Your task to perform on an android device: open app "Microsoft Authenticator" (install if not already installed) and enter user name: "Cornell@yahoo.com" and password: "bothersome" Image 0: 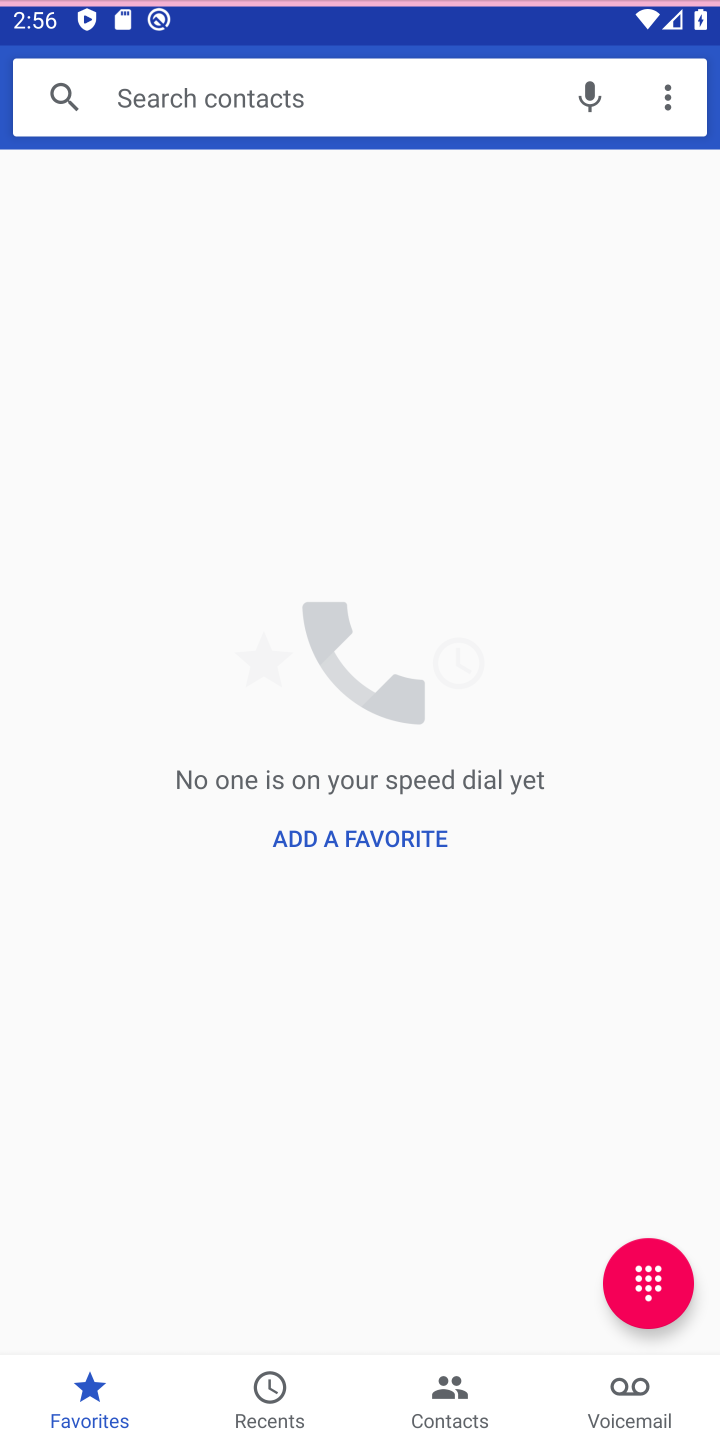
Step 0: press home button
Your task to perform on an android device: open app "Microsoft Authenticator" (install if not already installed) and enter user name: "Cornell@yahoo.com" and password: "bothersome" Image 1: 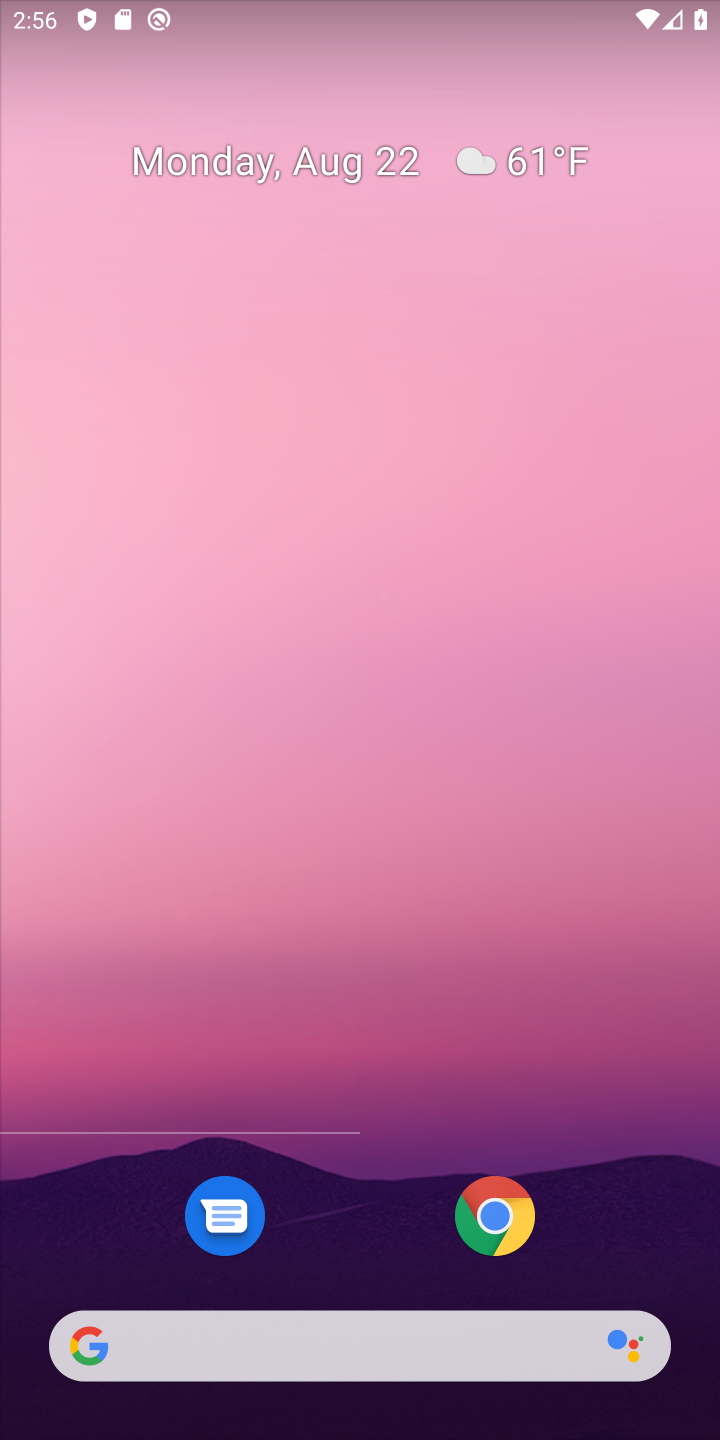
Step 1: drag from (325, 1222) to (302, 89)
Your task to perform on an android device: open app "Microsoft Authenticator" (install if not already installed) and enter user name: "Cornell@yahoo.com" and password: "bothersome" Image 2: 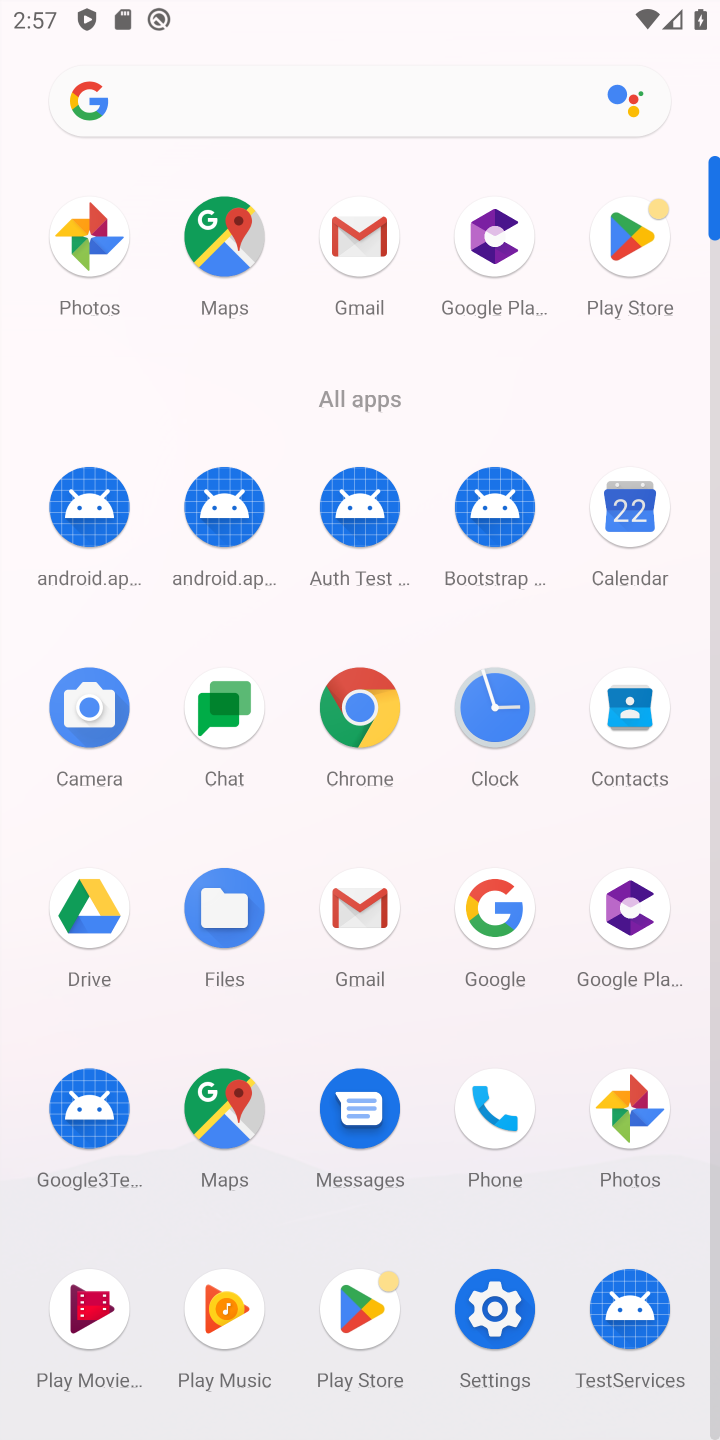
Step 2: click (637, 290)
Your task to perform on an android device: open app "Microsoft Authenticator" (install if not already installed) and enter user name: "Cornell@yahoo.com" and password: "bothersome" Image 3: 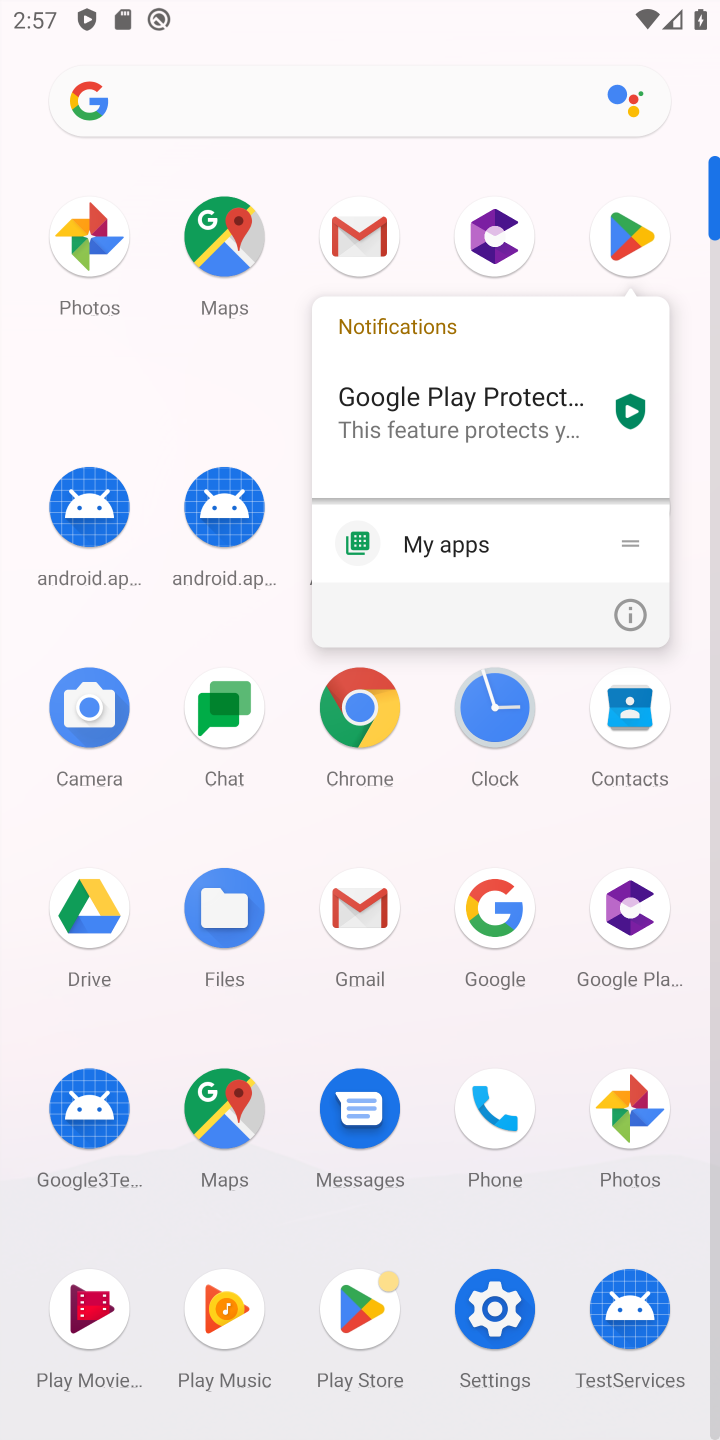
Step 3: click (595, 228)
Your task to perform on an android device: open app "Microsoft Authenticator" (install if not already installed) and enter user name: "Cornell@yahoo.com" and password: "bothersome" Image 4: 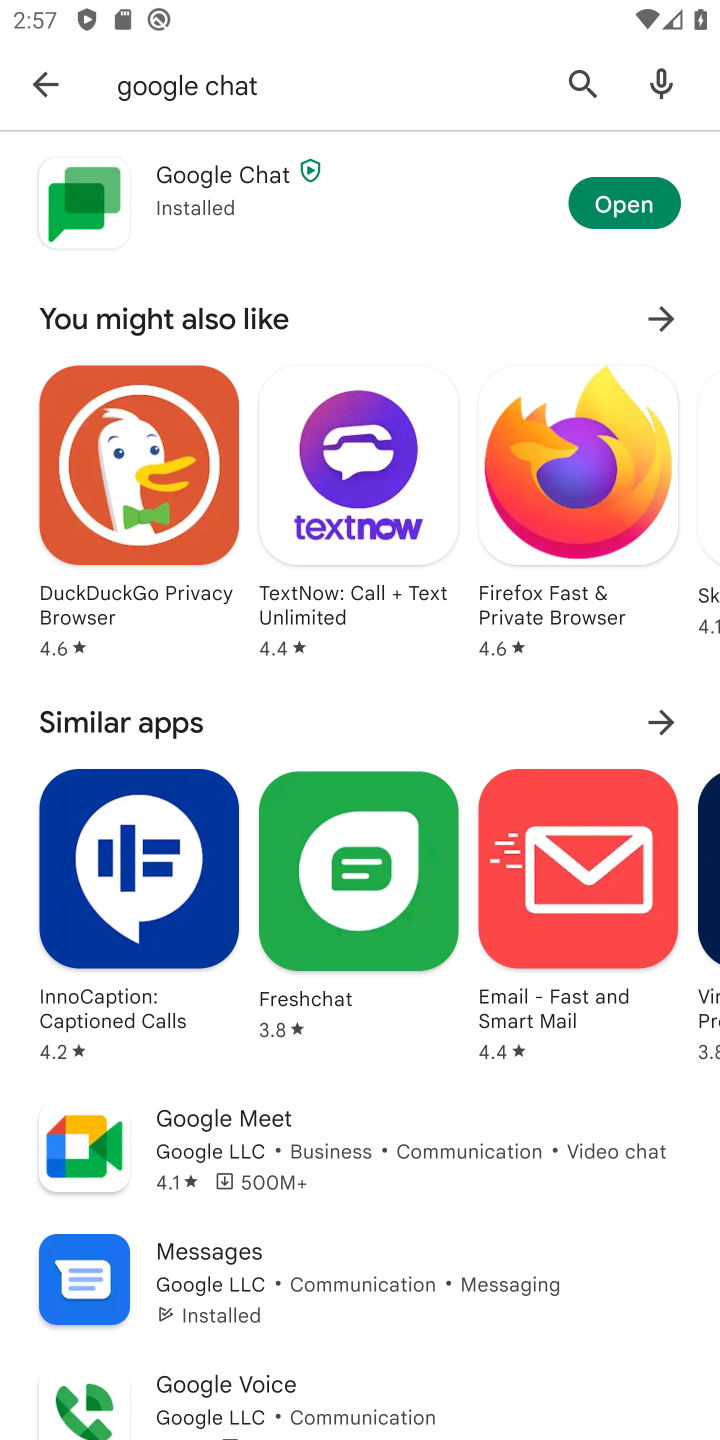
Step 4: click (280, 93)
Your task to perform on an android device: open app "Microsoft Authenticator" (install if not already installed) and enter user name: "Cornell@yahoo.com" and password: "bothersome" Image 5: 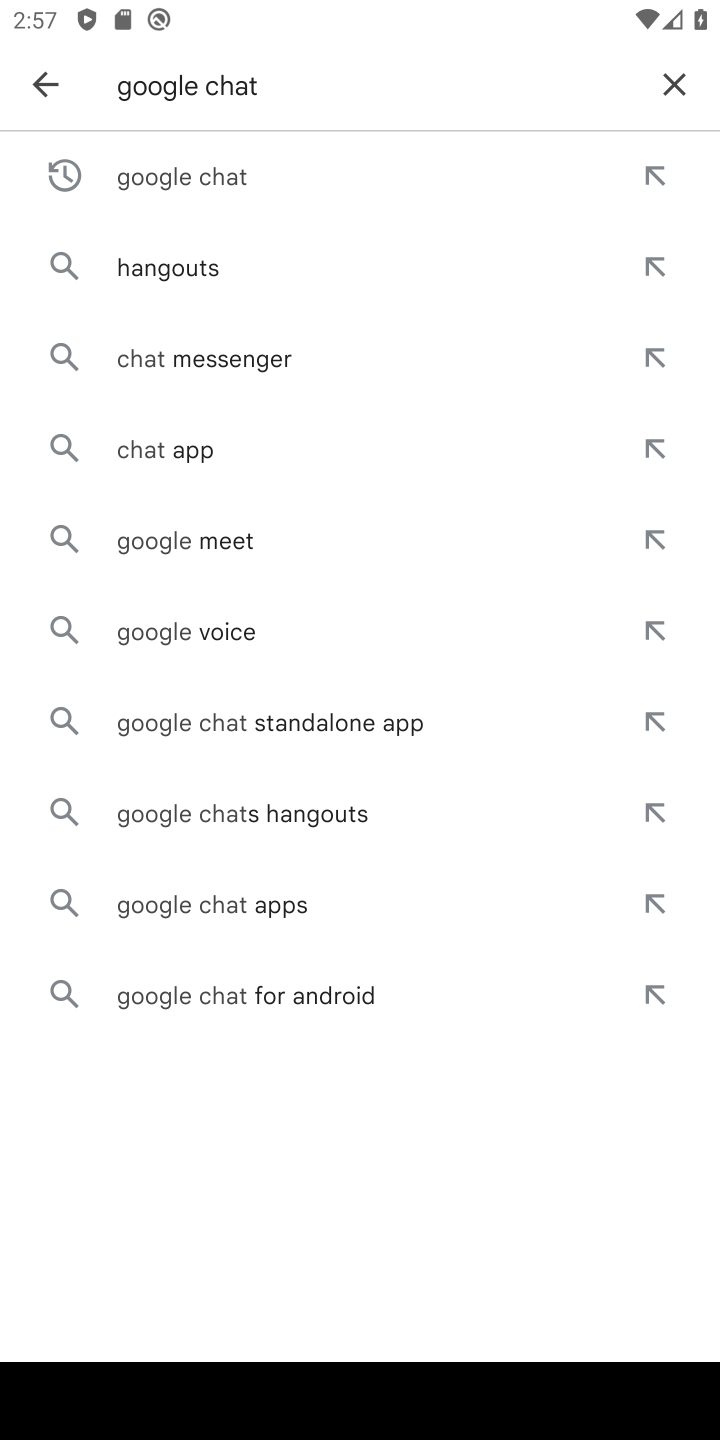
Step 5: click (677, 85)
Your task to perform on an android device: open app "Microsoft Authenticator" (install if not already installed) and enter user name: "Cornell@yahoo.com" and password: "bothersome" Image 6: 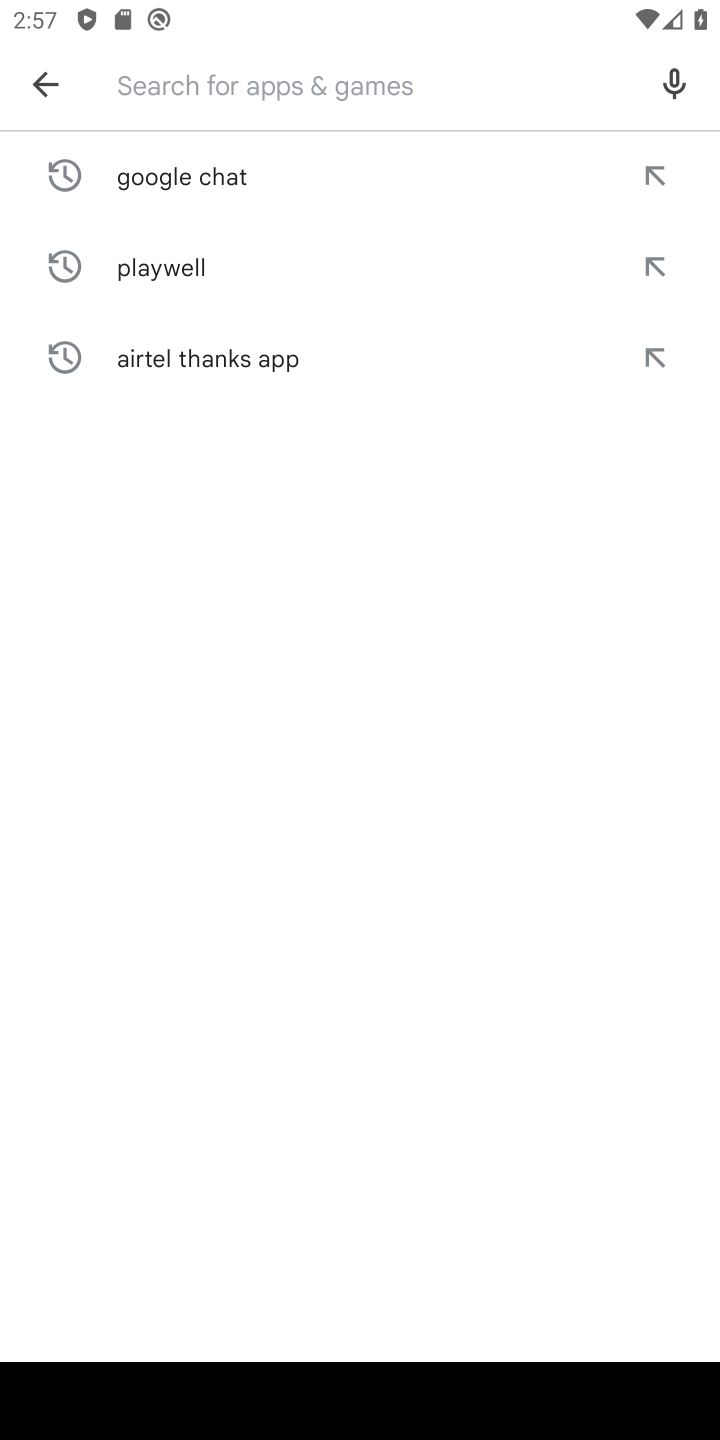
Step 6: type "microsoft Authenticator"
Your task to perform on an android device: open app "Microsoft Authenticator" (install if not already installed) and enter user name: "Cornell@yahoo.com" and password: "bothersome" Image 7: 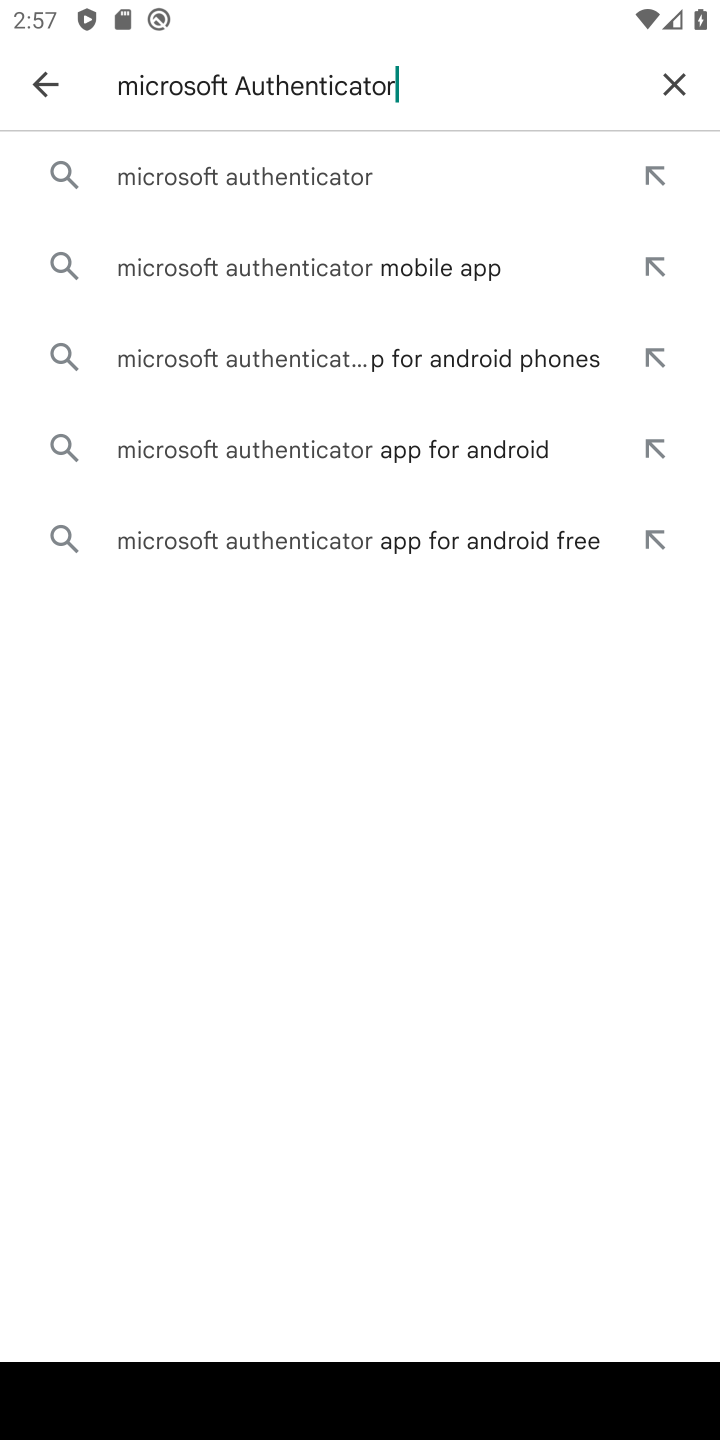
Step 7: click (336, 192)
Your task to perform on an android device: open app "Microsoft Authenticator" (install if not already installed) and enter user name: "Cornell@yahoo.com" and password: "bothersome" Image 8: 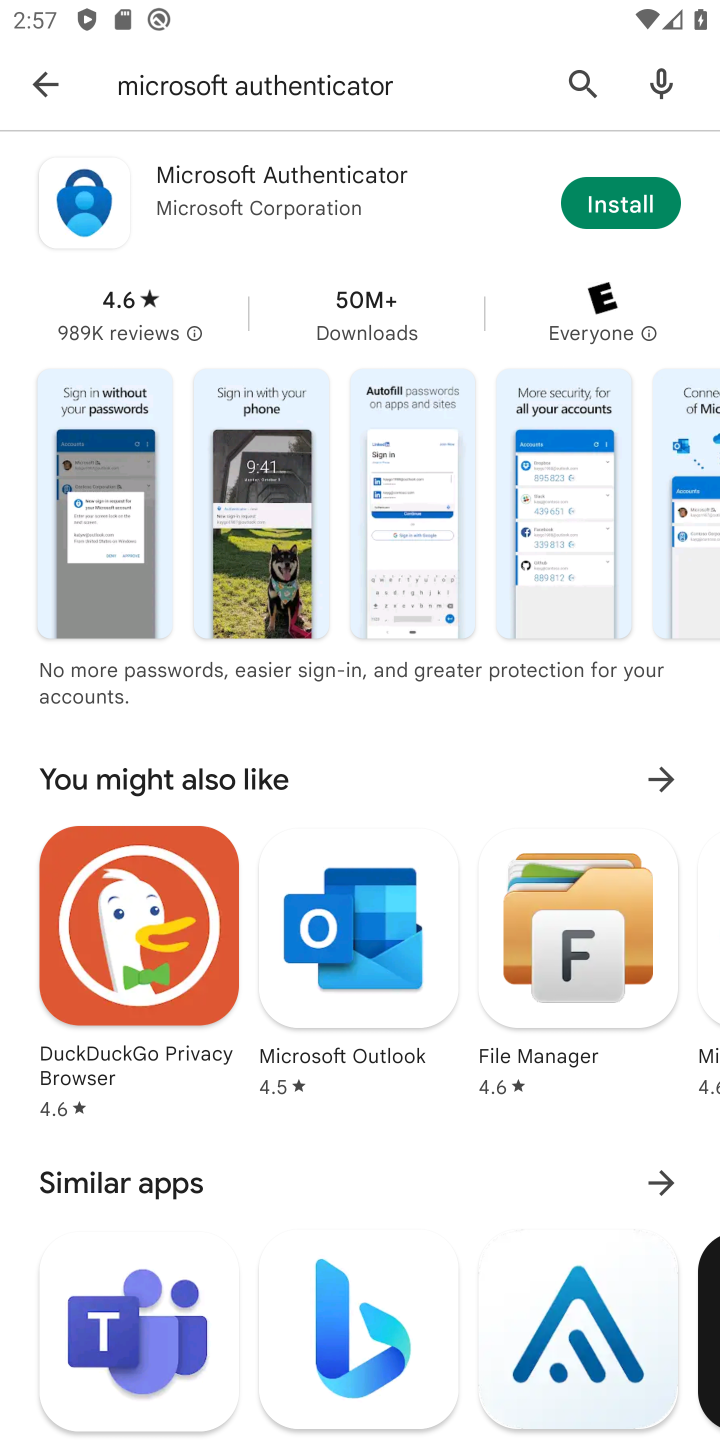
Step 8: click (601, 203)
Your task to perform on an android device: open app "Microsoft Authenticator" (install if not already installed) and enter user name: "Cornell@yahoo.com" and password: "bothersome" Image 9: 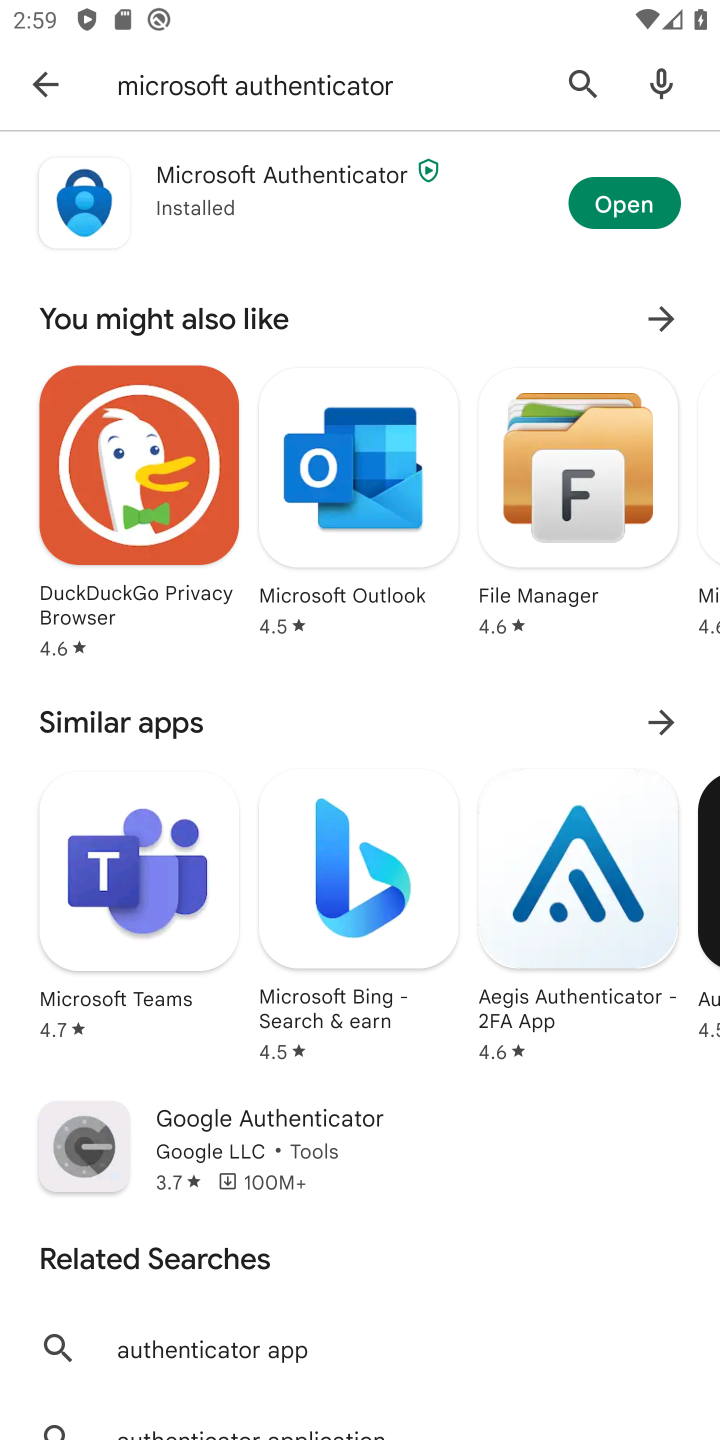
Step 9: click (581, 209)
Your task to perform on an android device: open app "Microsoft Authenticator" (install if not already installed) and enter user name: "Cornell@yahoo.com" and password: "bothersome" Image 10: 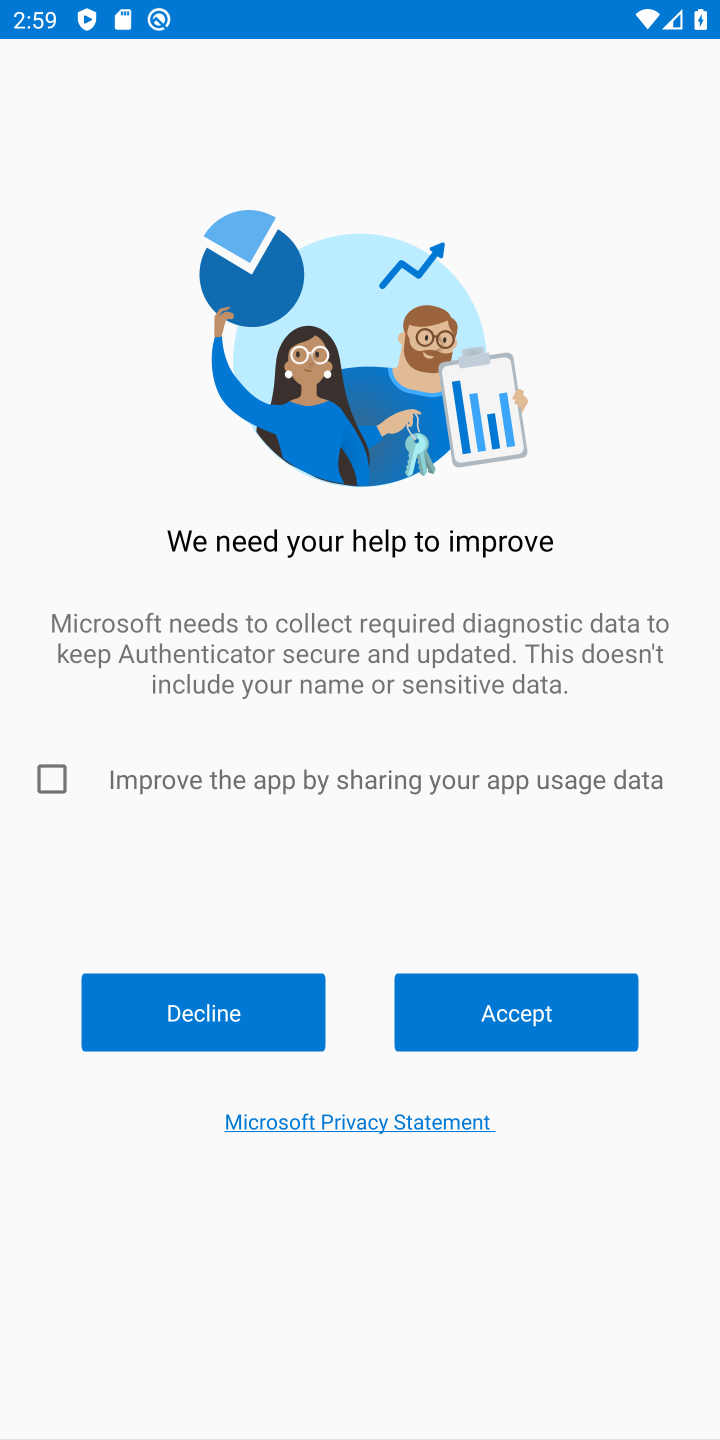
Step 10: click (51, 779)
Your task to perform on an android device: open app "Microsoft Authenticator" (install if not already installed) and enter user name: "Cornell@yahoo.com" and password: "bothersome" Image 11: 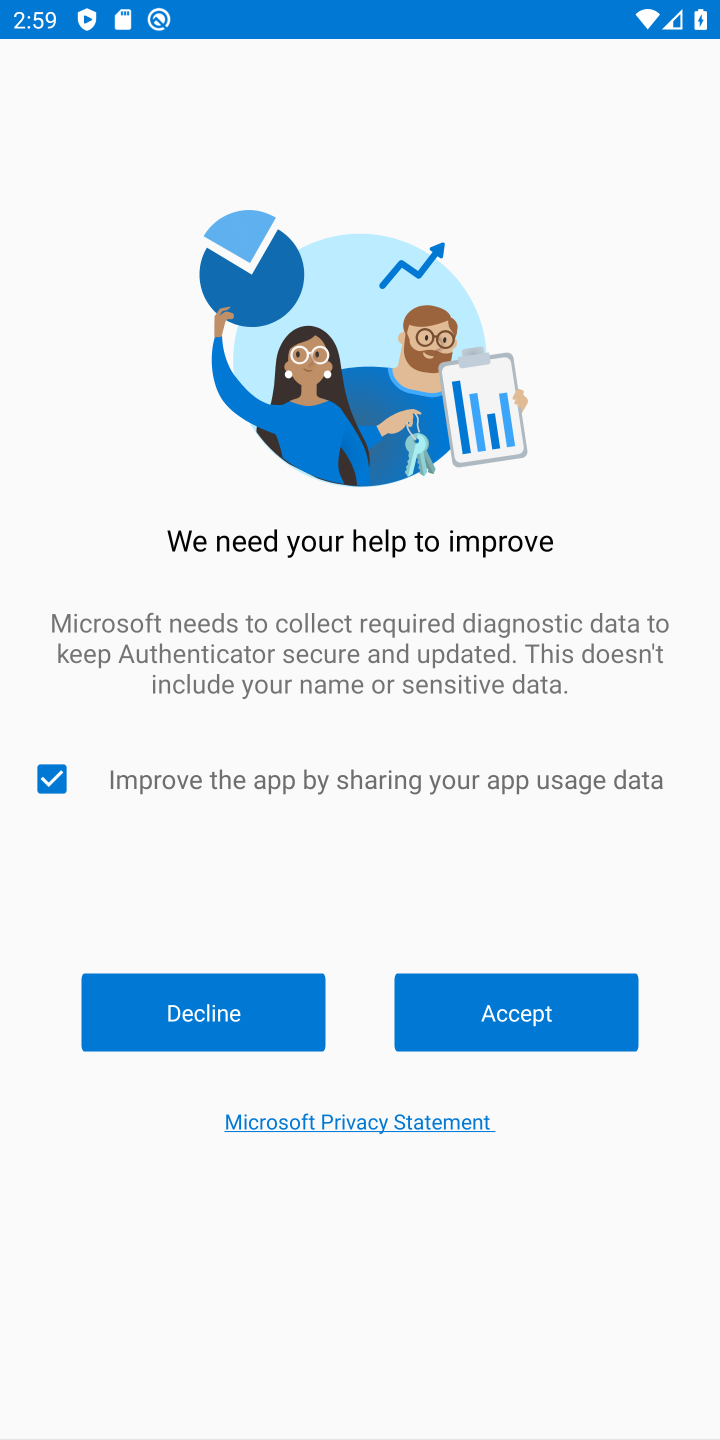
Step 11: click (466, 1019)
Your task to perform on an android device: open app "Microsoft Authenticator" (install if not already installed) and enter user name: "Cornell@yahoo.com" and password: "bothersome" Image 12: 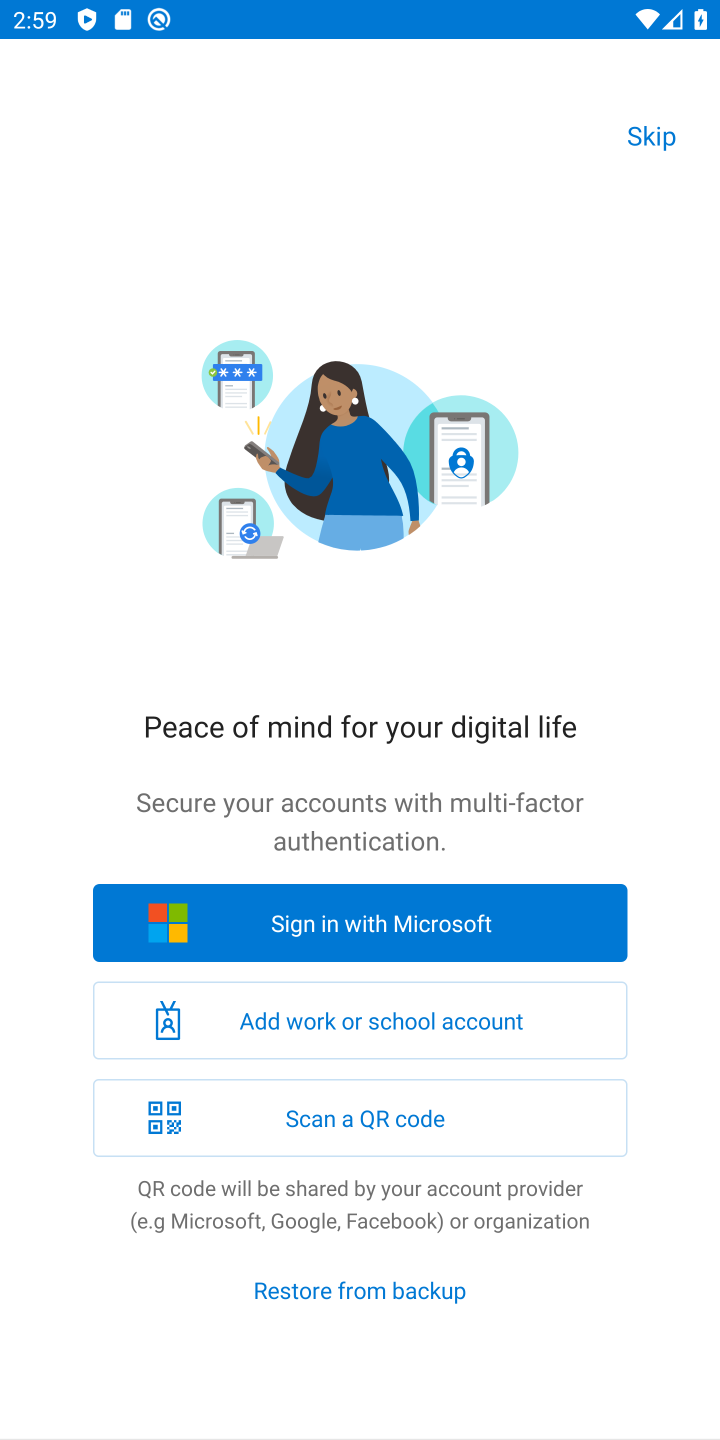
Step 12: click (410, 923)
Your task to perform on an android device: open app "Microsoft Authenticator" (install if not already installed) and enter user name: "Cornell@yahoo.com" and password: "bothersome" Image 13: 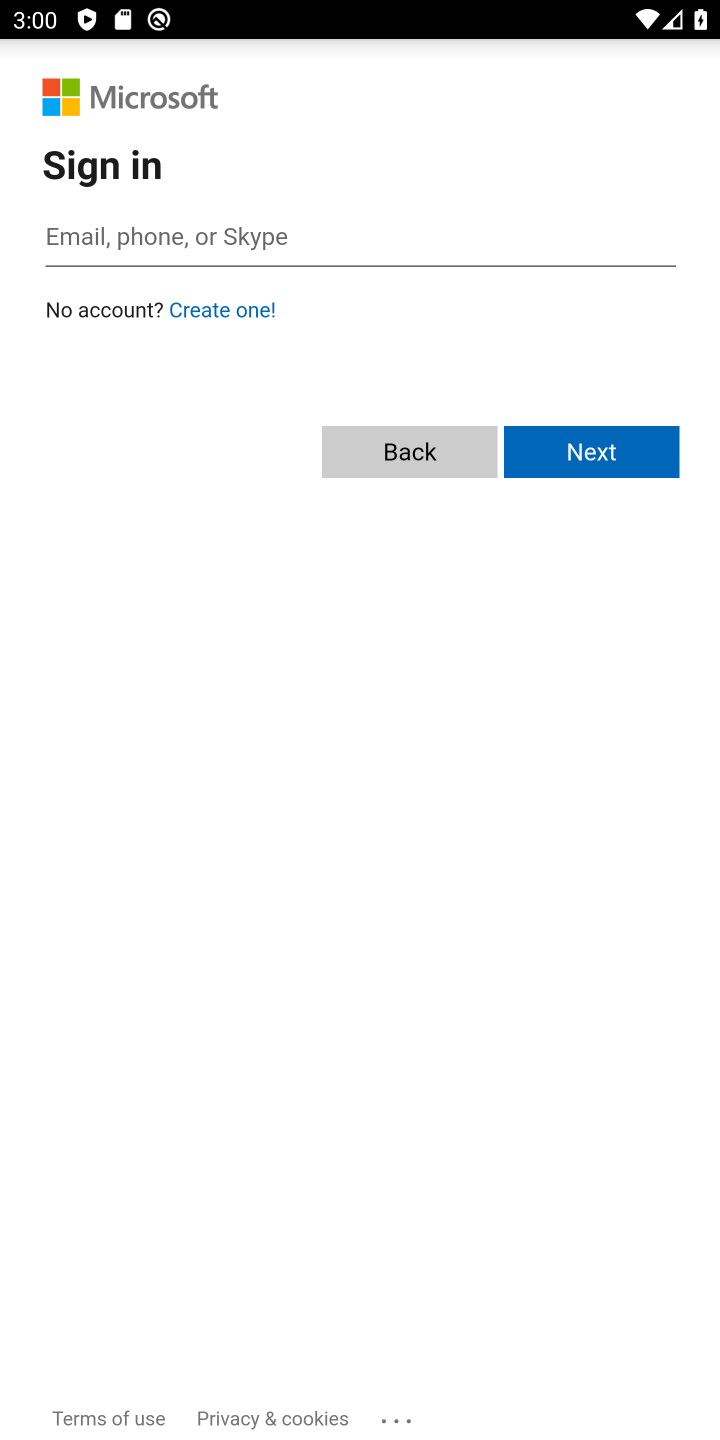
Step 13: click (320, 219)
Your task to perform on an android device: open app "Microsoft Authenticator" (install if not already installed) and enter user name: "Cornell@yahoo.com" and password: "bothersome" Image 14: 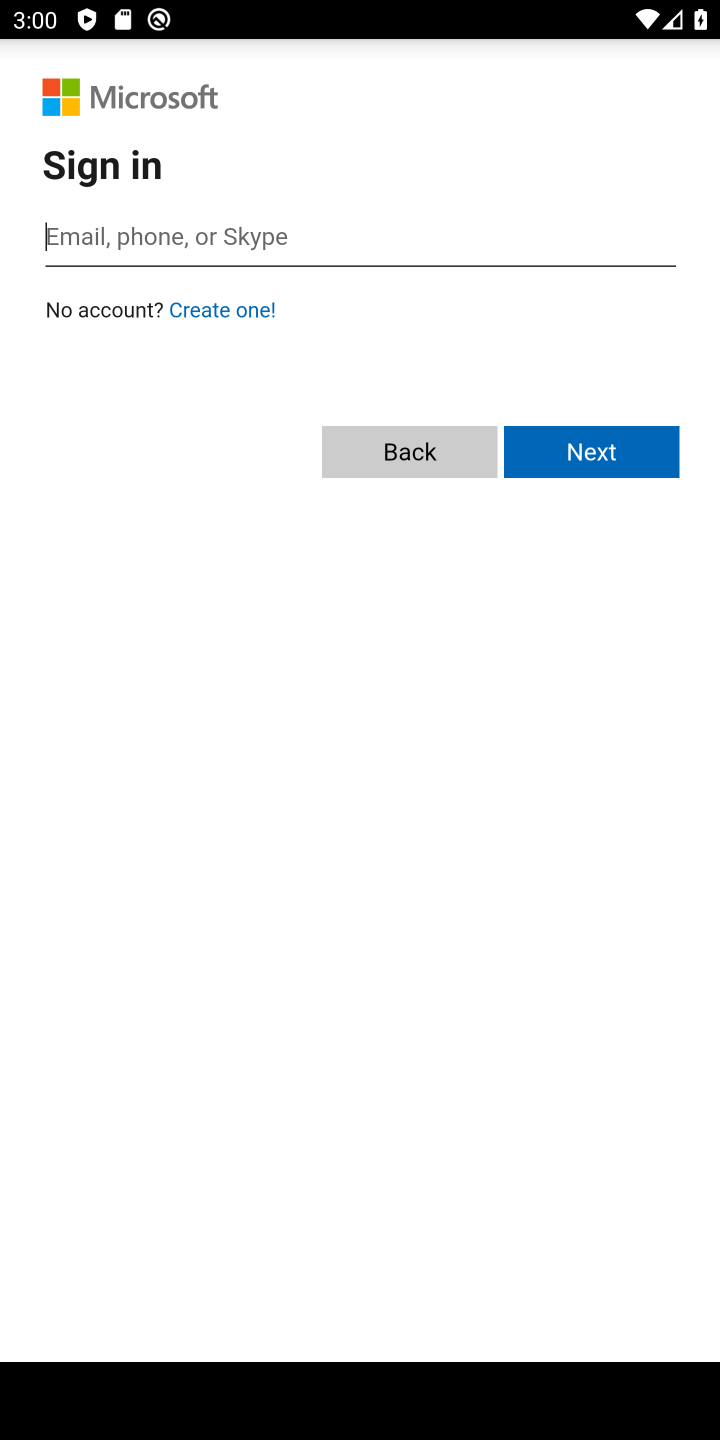
Step 14: click (297, 238)
Your task to perform on an android device: open app "Microsoft Authenticator" (install if not already installed) and enter user name: "Cornell@yahoo.com" and password: "bothersome" Image 15: 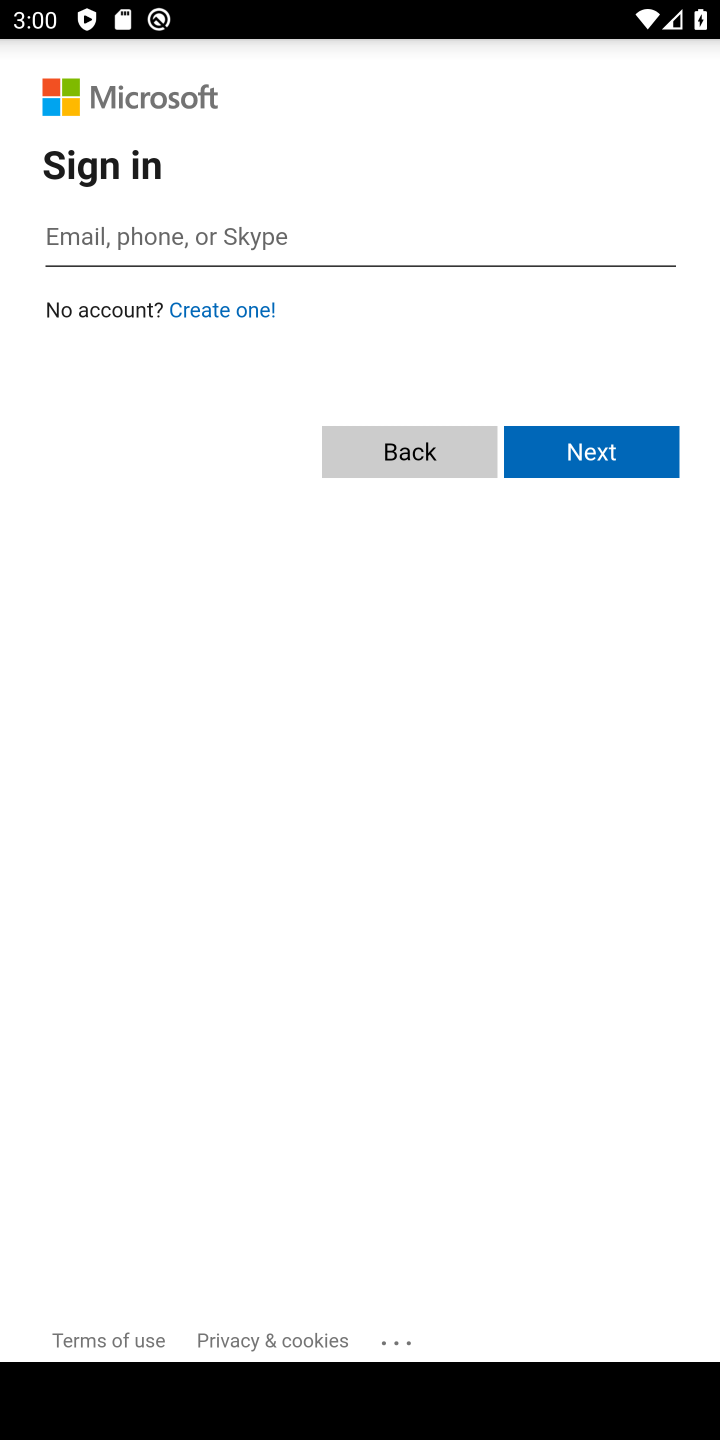
Step 15: type "Cornell@yahoo.com"
Your task to perform on an android device: open app "Microsoft Authenticator" (install if not already installed) and enter user name: "Cornell@yahoo.com" and password: "bothersome" Image 16: 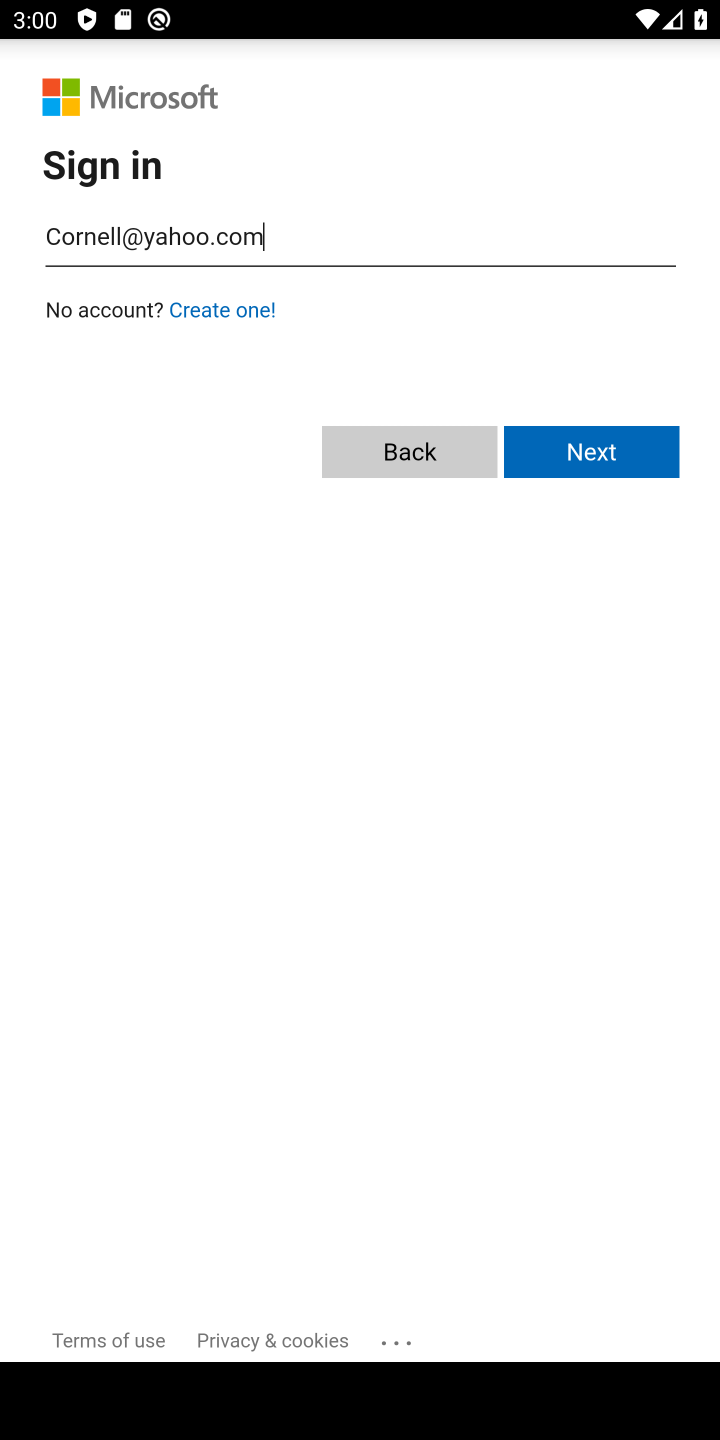
Step 16: click (633, 467)
Your task to perform on an android device: open app "Microsoft Authenticator" (install if not already installed) and enter user name: "Cornell@yahoo.com" and password: "bothersome" Image 17: 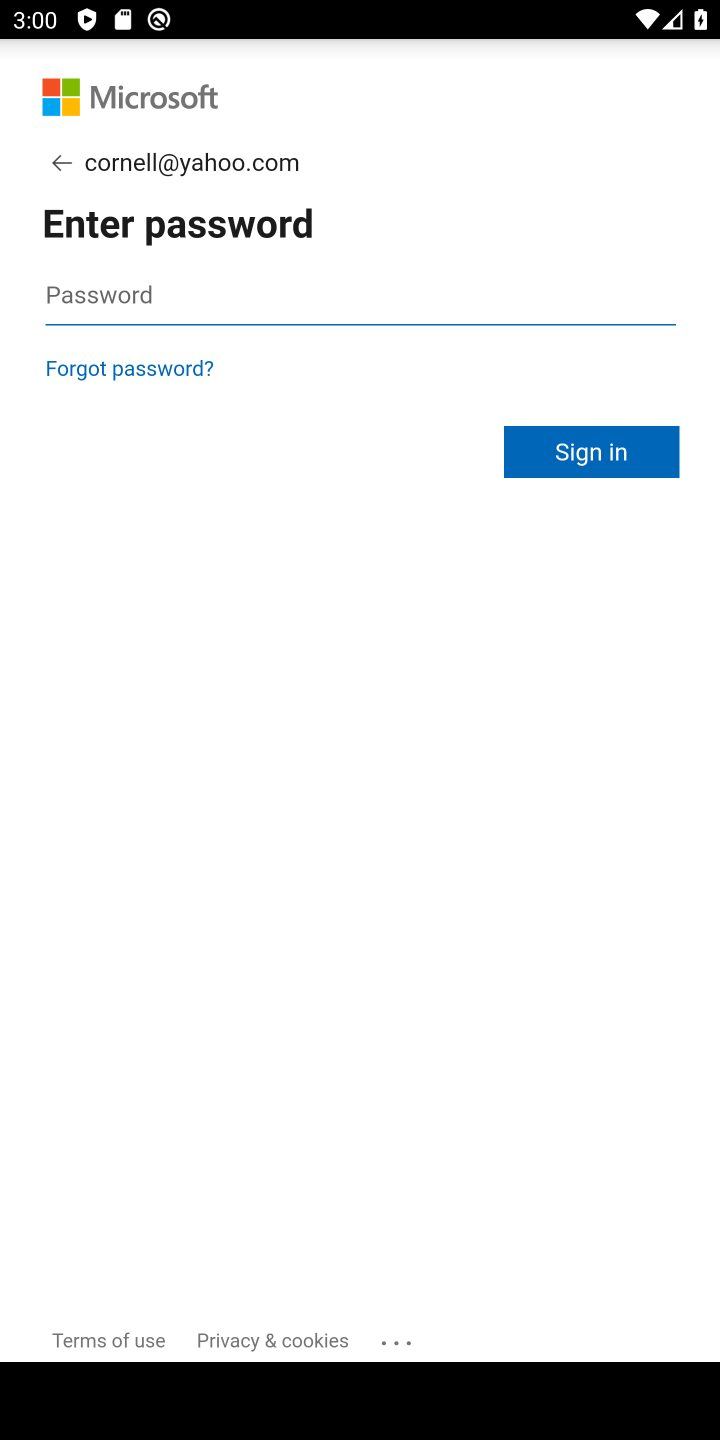
Step 17: type "bothersome"
Your task to perform on an android device: open app "Microsoft Authenticator" (install if not already installed) and enter user name: "Cornell@yahoo.com" and password: "bothersome" Image 18: 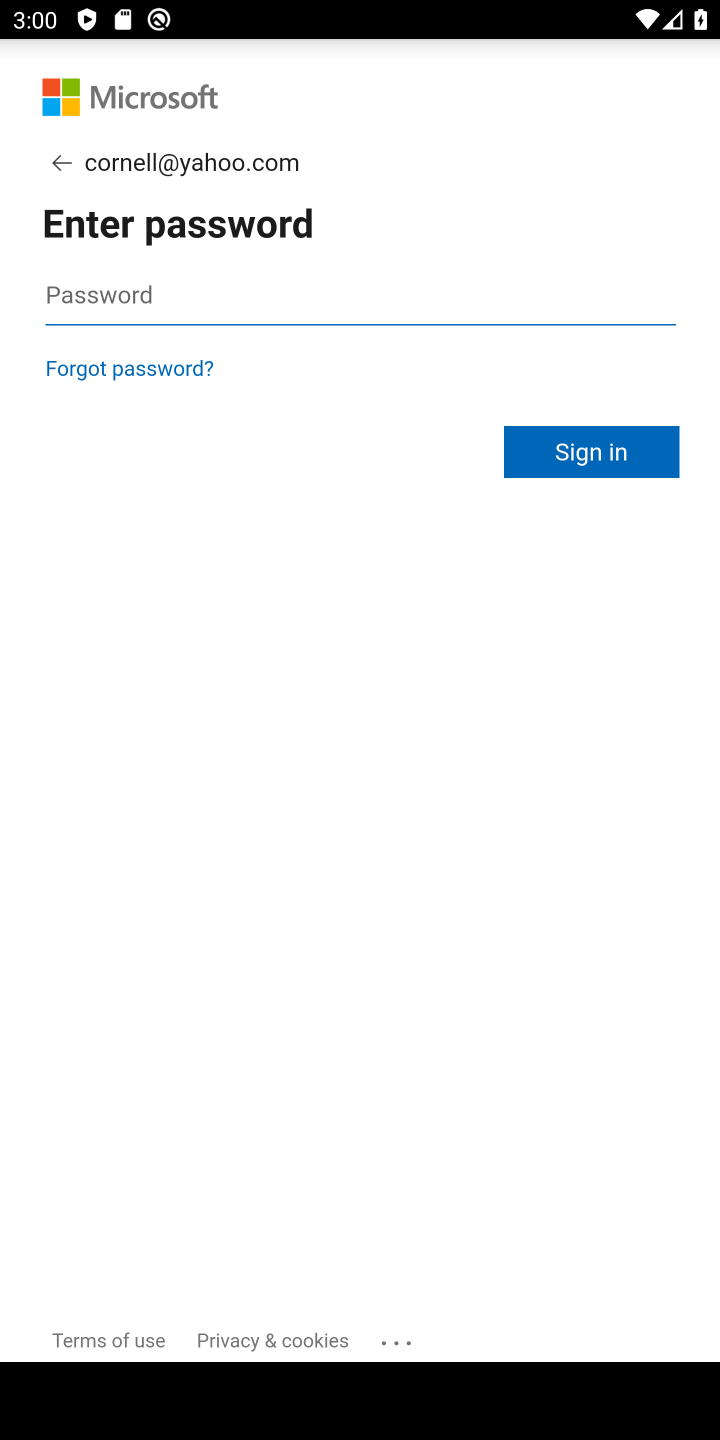
Step 18: click (416, 302)
Your task to perform on an android device: open app "Microsoft Authenticator" (install if not already installed) and enter user name: "Cornell@yahoo.com" and password: "bothersome" Image 19: 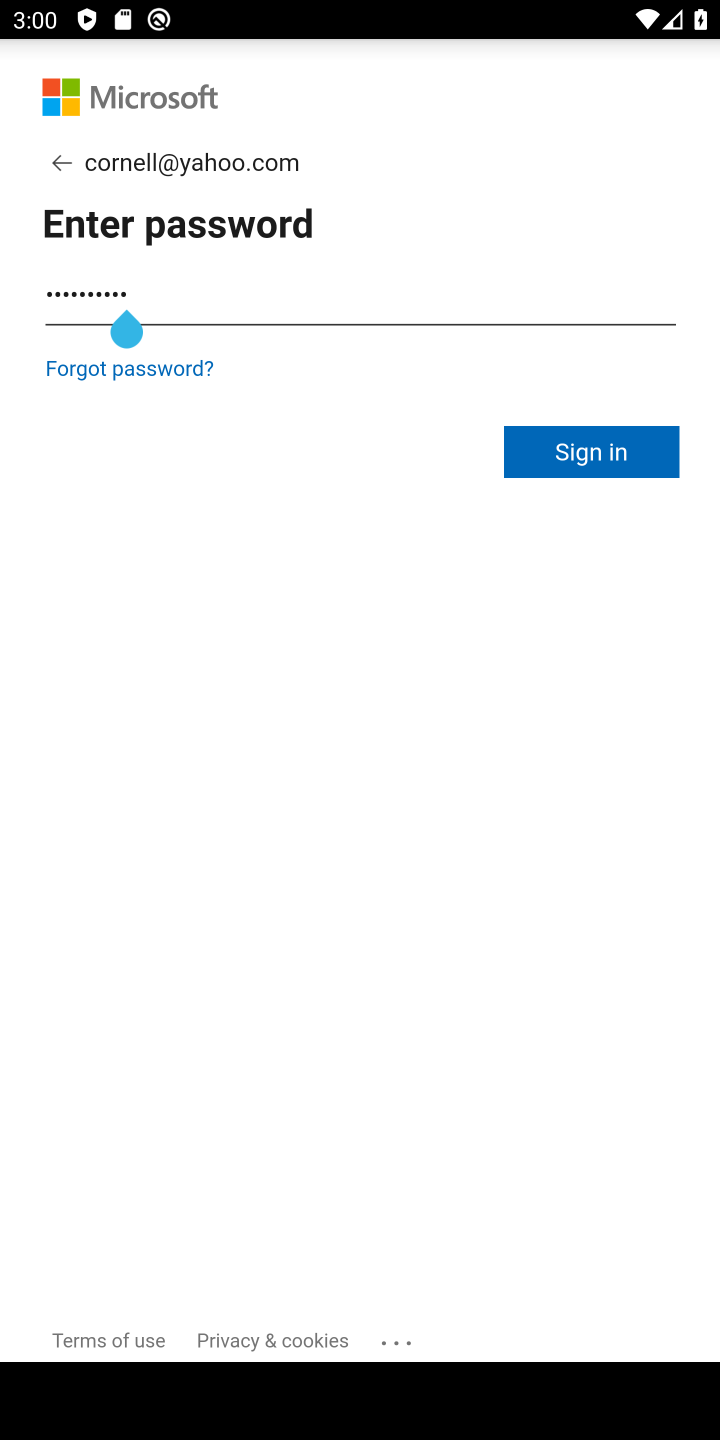
Step 19: click (634, 454)
Your task to perform on an android device: open app "Microsoft Authenticator" (install if not already installed) and enter user name: "Cornell@yahoo.com" and password: "bothersome" Image 20: 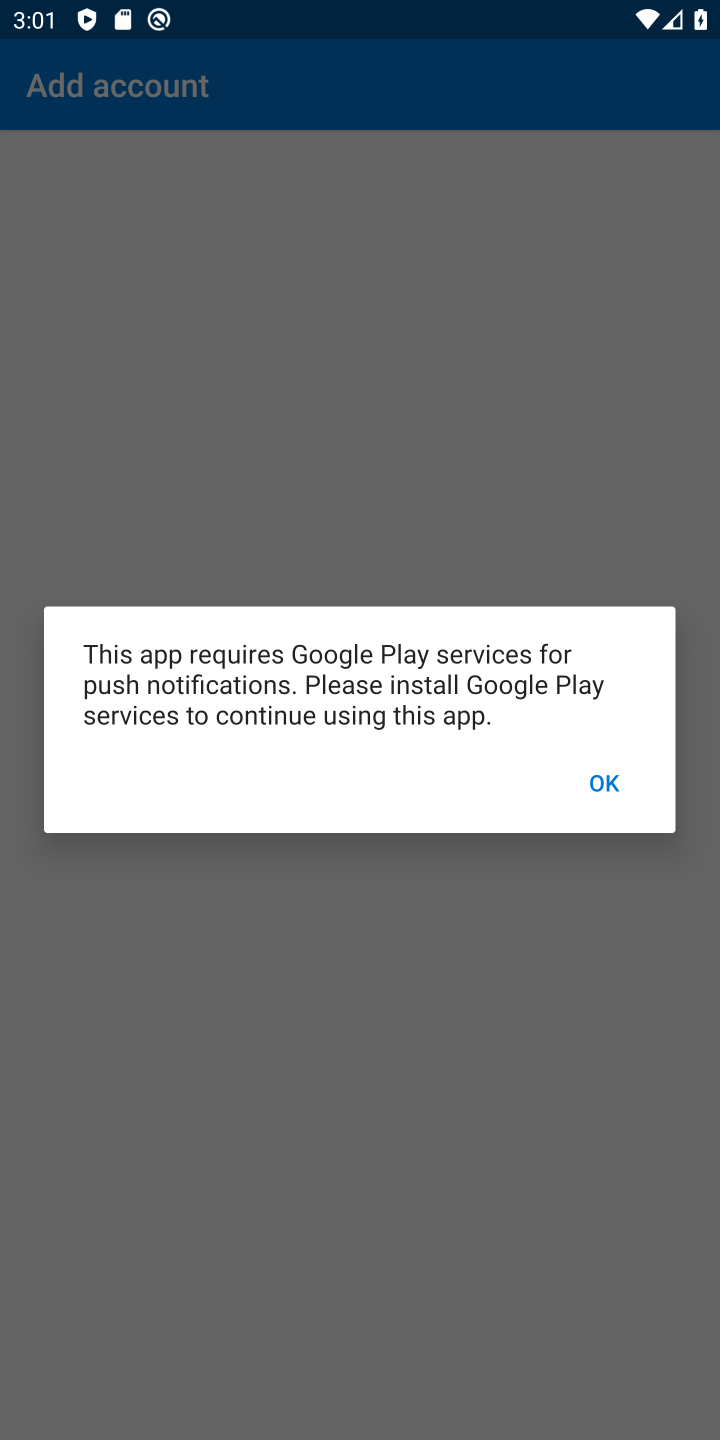
Step 20: task complete